Your task to perform on an android device: Show me productivity apps on the Play Store Image 0: 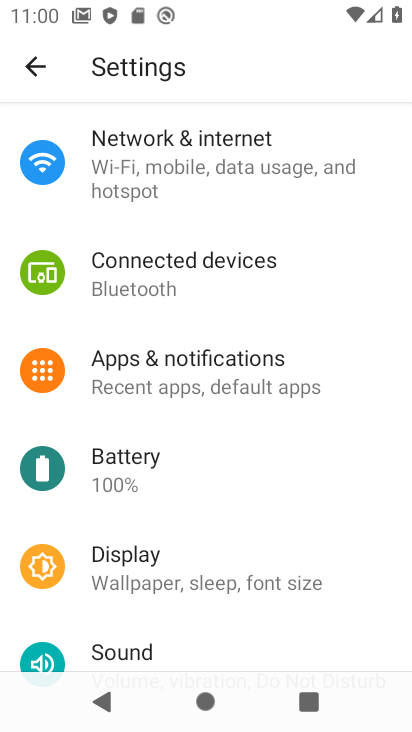
Step 0: press home button
Your task to perform on an android device: Show me productivity apps on the Play Store Image 1: 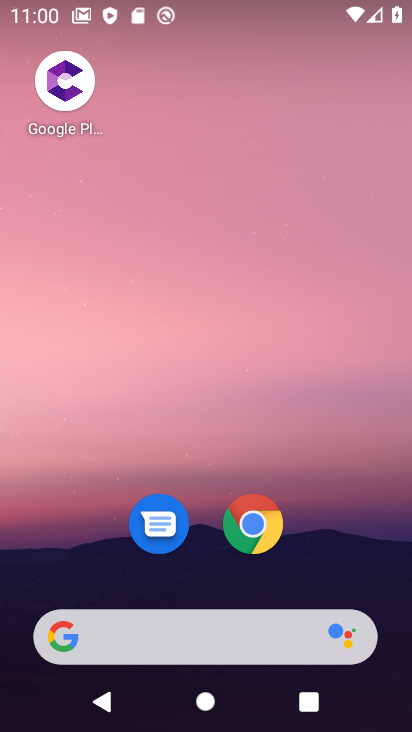
Step 1: drag from (228, 591) to (305, 126)
Your task to perform on an android device: Show me productivity apps on the Play Store Image 2: 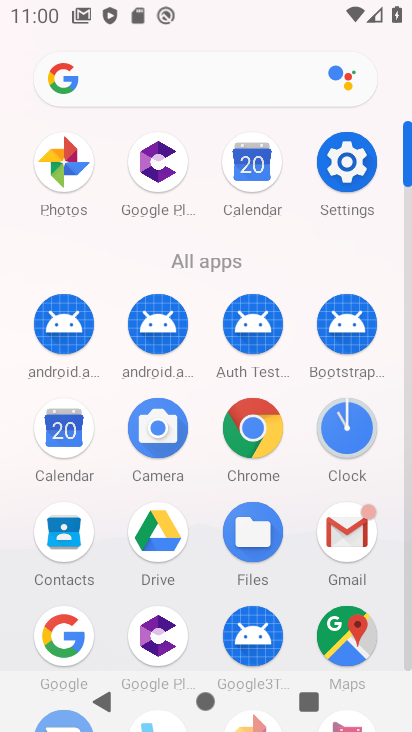
Step 2: drag from (117, 607) to (230, 128)
Your task to perform on an android device: Show me productivity apps on the Play Store Image 3: 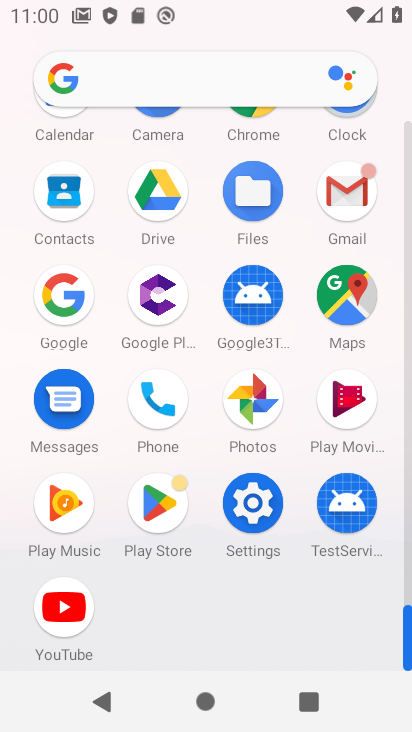
Step 3: click (159, 514)
Your task to perform on an android device: Show me productivity apps on the Play Store Image 4: 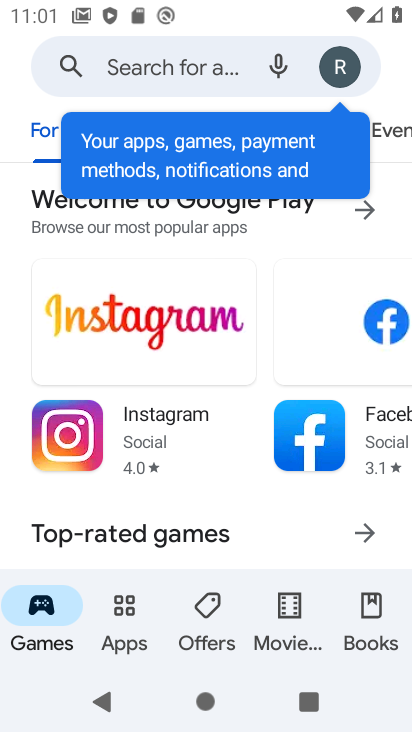
Step 4: click (120, 614)
Your task to perform on an android device: Show me productivity apps on the Play Store Image 5: 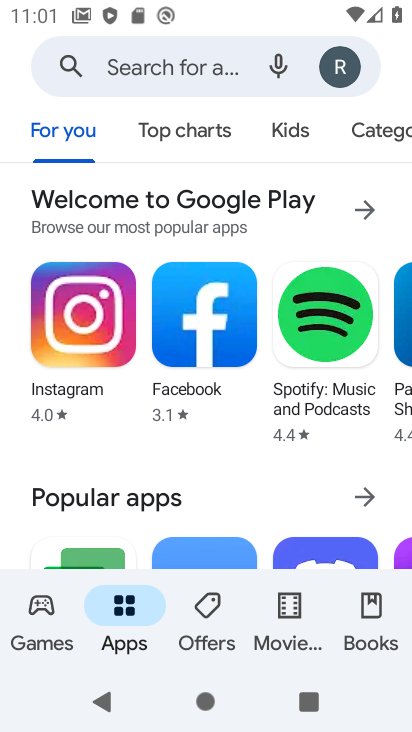
Step 5: click (383, 123)
Your task to perform on an android device: Show me productivity apps on the Play Store Image 6: 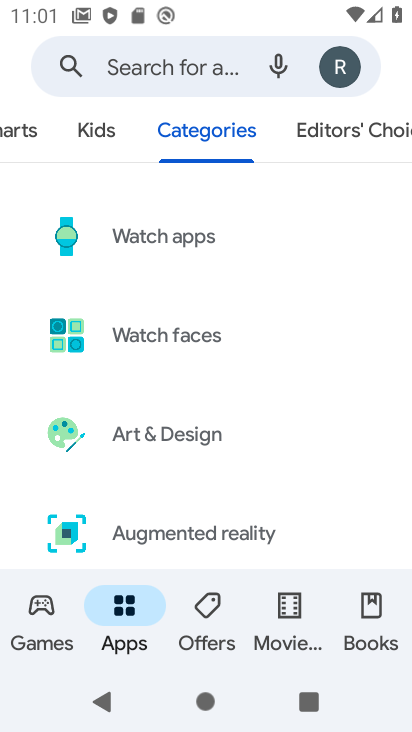
Step 6: drag from (260, 478) to (365, 128)
Your task to perform on an android device: Show me productivity apps on the Play Store Image 7: 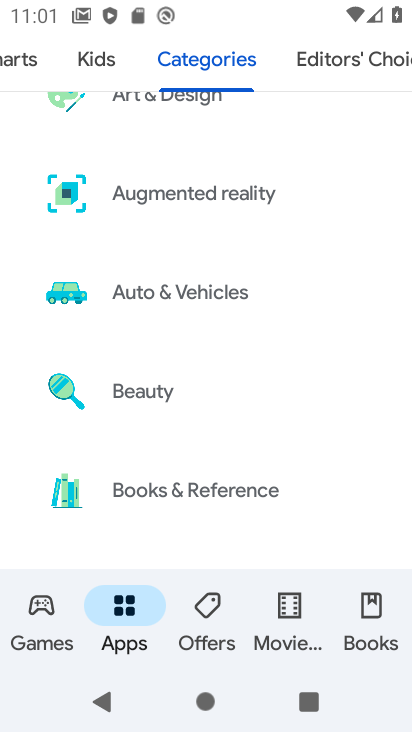
Step 7: drag from (238, 444) to (360, 61)
Your task to perform on an android device: Show me productivity apps on the Play Store Image 8: 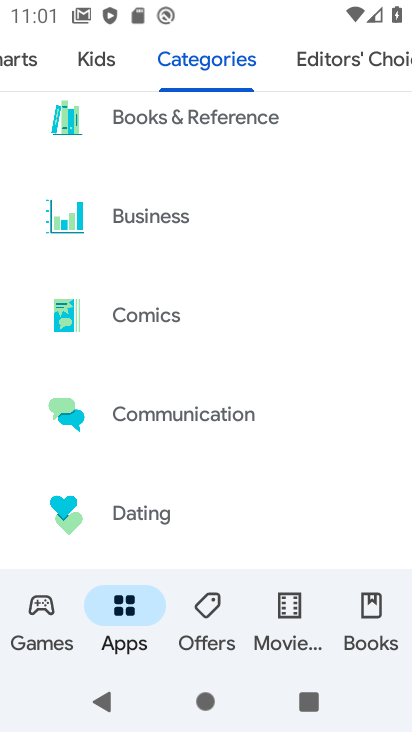
Step 8: drag from (219, 508) to (301, 95)
Your task to perform on an android device: Show me productivity apps on the Play Store Image 9: 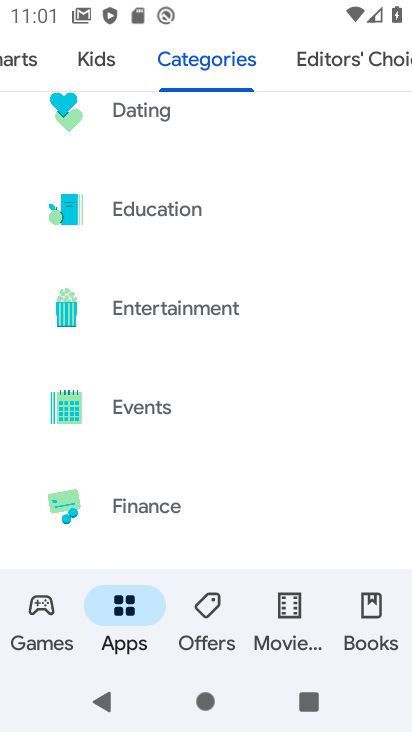
Step 9: drag from (222, 431) to (315, 91)
Your task to perform on an android device: Show me productivity apps on the Play Store Image 10: 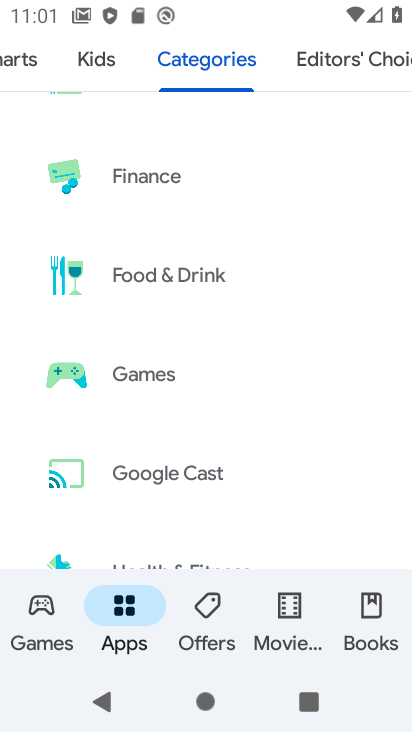
Step 10: drag from (229, 481) to (347, 4)
Your task to perform on an android device: Show me productivity apps on the Play Store Image 11: 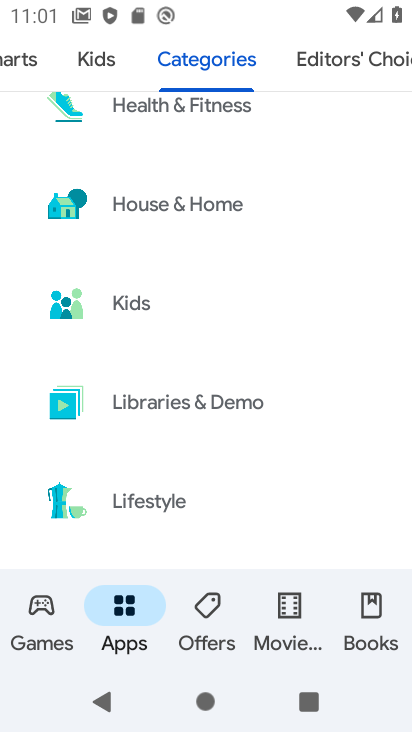
Step 11: drag from (242, 477) to (316, 103)
Your task to perform on an android device: Show me productivity apps on the Play Store Image 12: 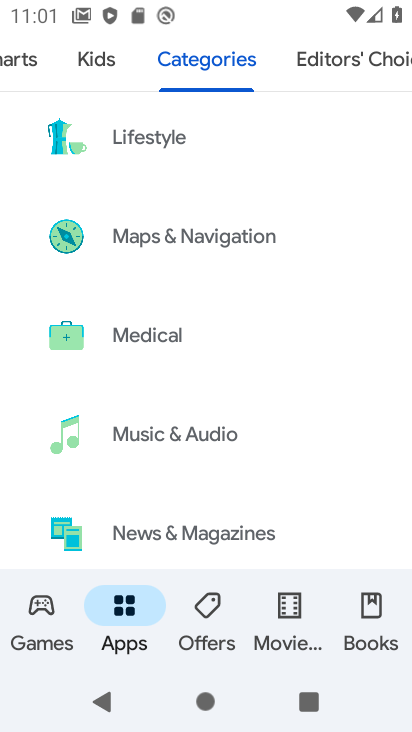
Step 12: drag from (262, 494) to (382, 46)
Your task to perform on an android device: Show me productivity apps on the Play Store Image 13: 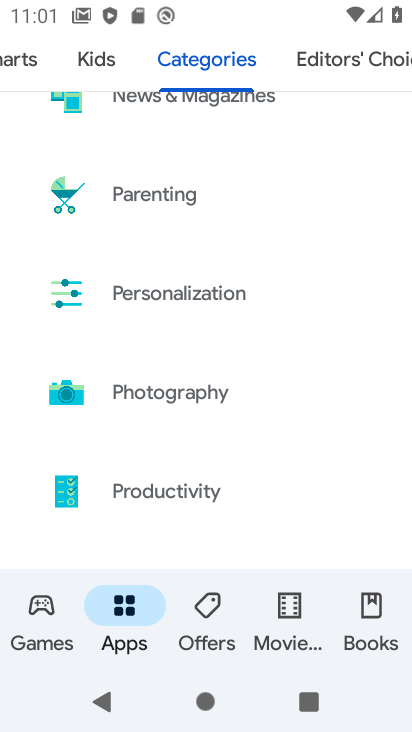
Step 13: click (196, 493)
Your task to perform on an android device: Show me productivity apps on the Play Store Image 14: 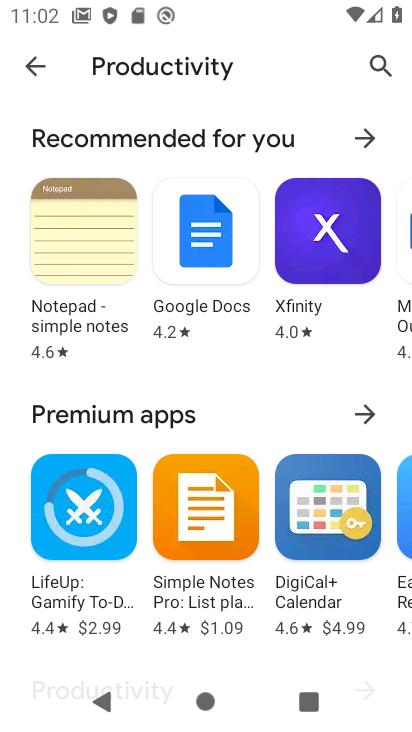
Step 14: task complete